Your task to perform on an android device: Open Google Chrome and click the shortcut for Amazon.com Image 0: 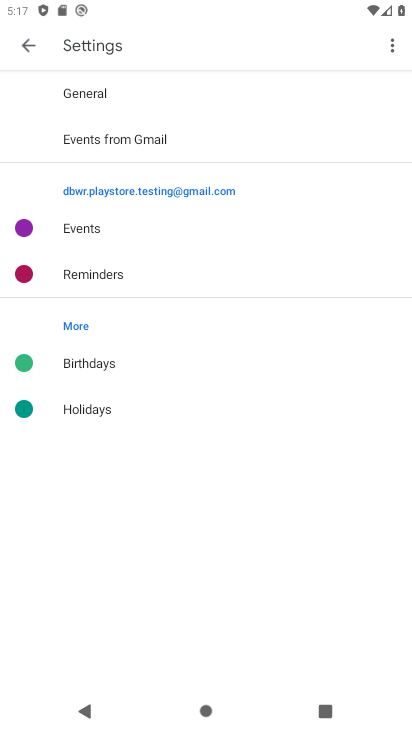
Step 0: press back button
Your task to perform on an android device: Open Google Chrome and click the shortcut for Amazon.com Image 1: 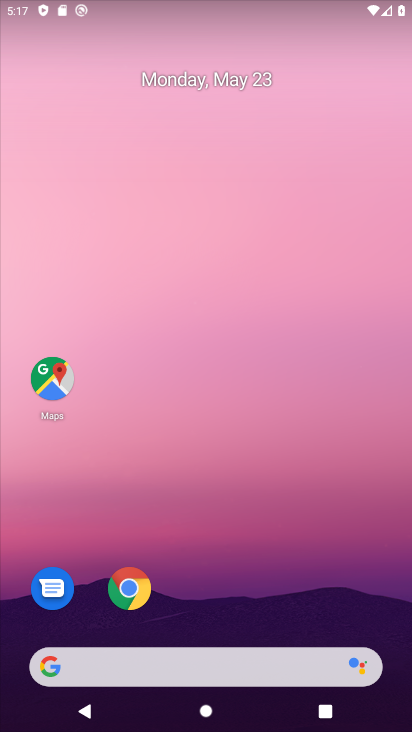
Step 1: drag from (251, 456) to (188, 2)
Your task to perform on an android device: Open Google Chrome and click the shortcut for Amazon.com Image 2: 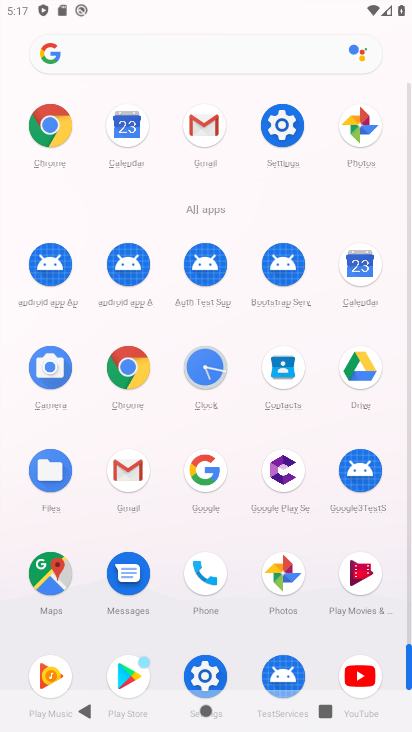
Step 2: drag from (6, 509) to (8, 185)
Your task to perform on an android device: Open Google Chrome and click the shortcut for Amazon.com Image 3: 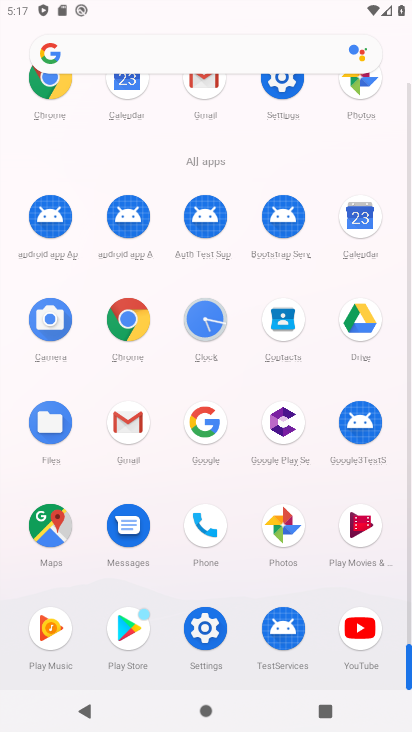
Step 3: drag from (15, 568) to (27, 170)
Your task to perform on an android device: Open Google Chrome and click the shortcut for Amazon.com Image 4: 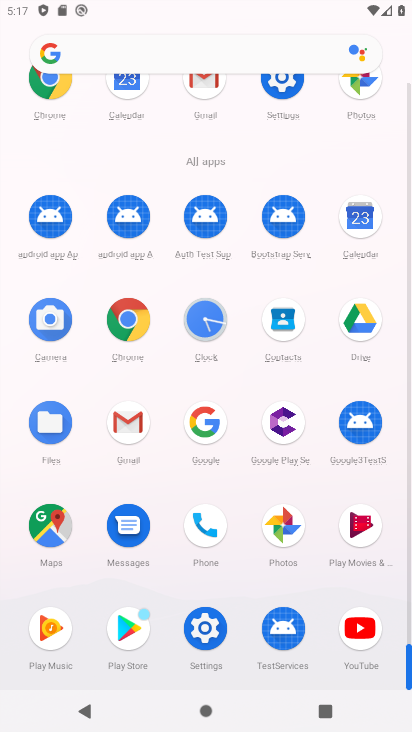
Step 4: drag from (21, 94) to (23, 176)
Your task to perform on an android device: Open Google Chrome and click the shortcut for Amazon.com Image 5: 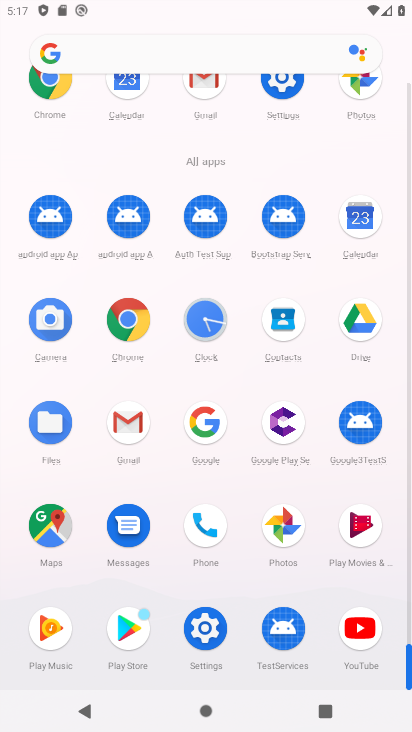
Step 5: drag from (15, 547) to (20, 277)
Your task to perform on an android device: Open Google Chrome and click the shortcut for Amazon.com Image 6: 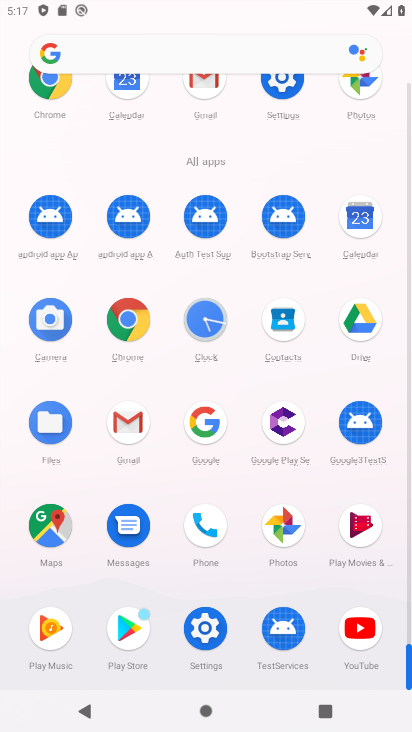
Step 6: click (125, 321)
Your task to perform on an android device: Open Google Chrome and click the shortcut for Amazon.com Image 7: 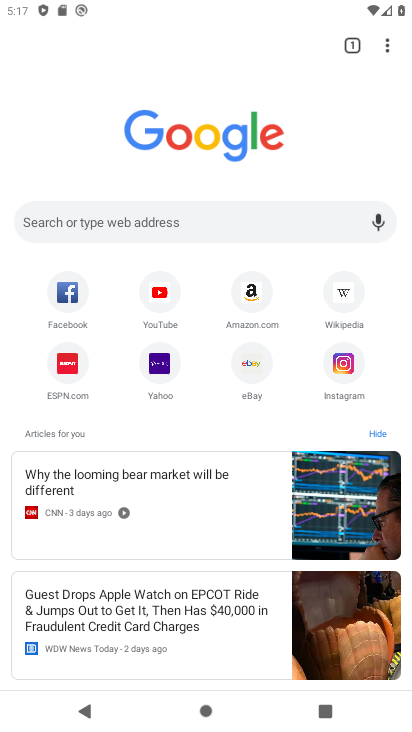
Step 7: click (174, 217)
Your task to perform on an android device: Open Google Chrome and click the shortcut for Amazon.com Image 8: 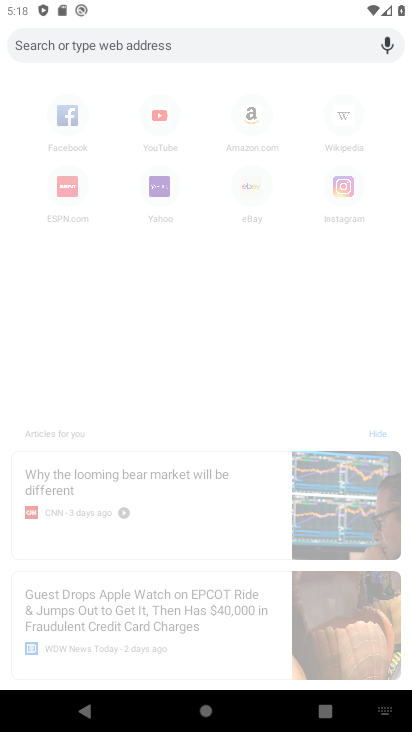
Step 8: click (252, 116)
Your task to perform on an android device: Open Google Chrome and click the shortcut for Amazon.com Image 9: 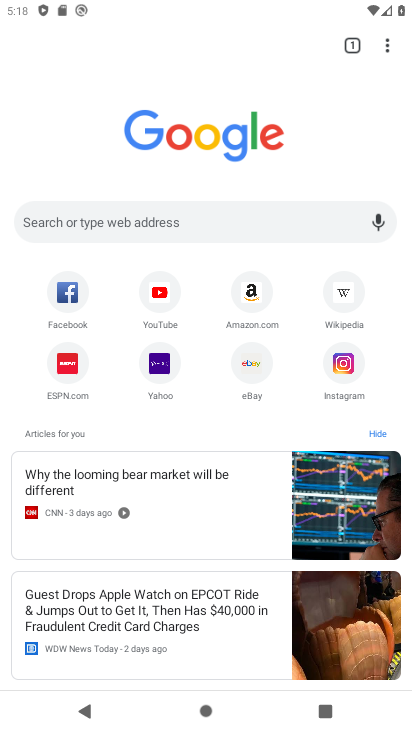
Step 9: click (254, 294)
Your task to perform on an android device: Open Google Chrome and click the shortcut for Amazon.com Image 10: 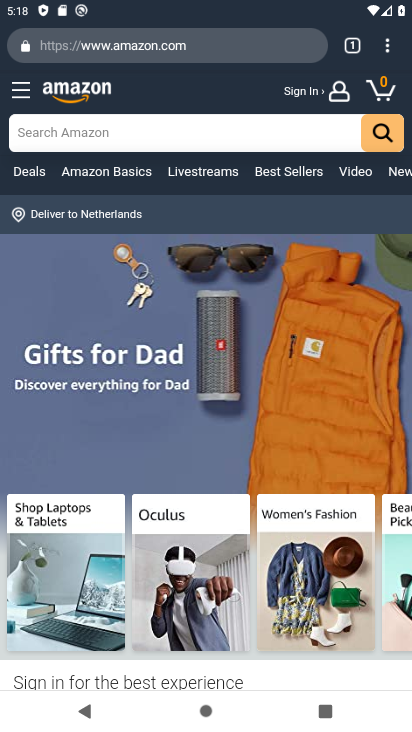
Step 10: task complete